Your task to perform on an android device: delete a single message in the gmail app Image 0: 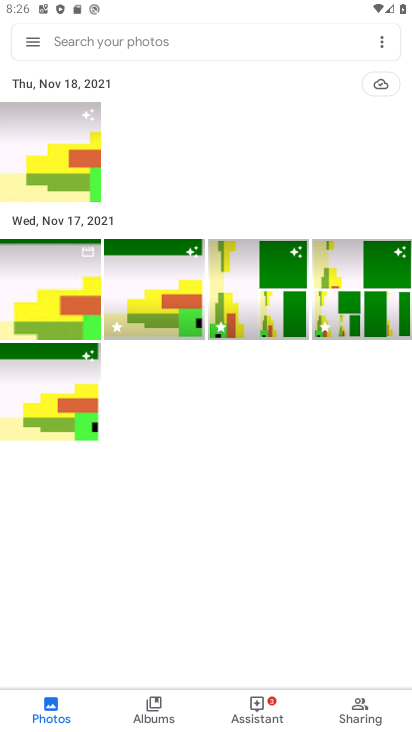
Step 0: press home button
Your task to perform on an android device: delete a single message in the gmail app Image 1: 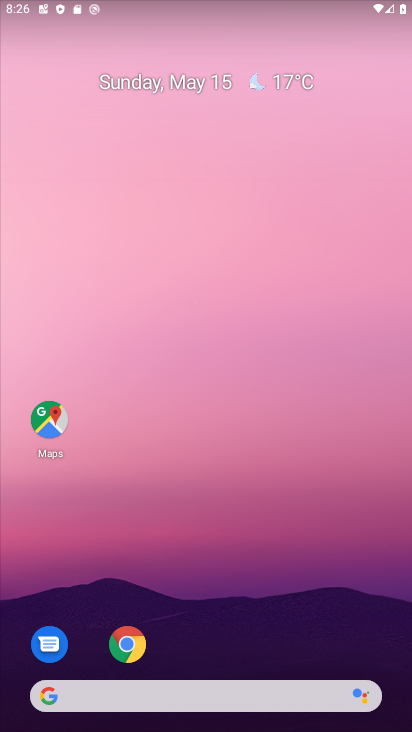
Step 1: drag from (250, 704) to (194, 114)
Your task to perform on an android device: delete a single message in the gmail app Image 2: 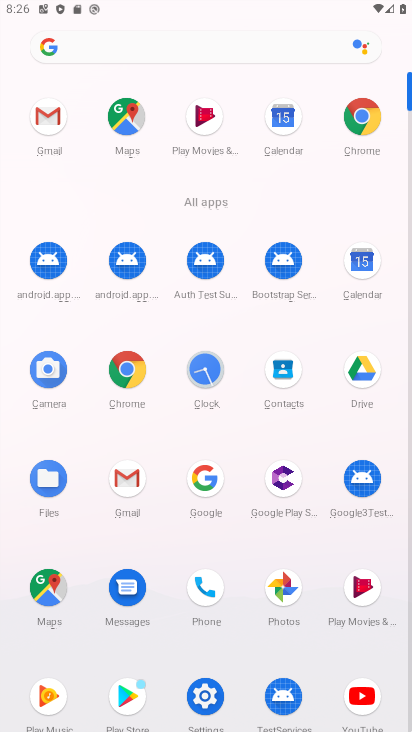
Step 2: click (45, 111)
Your task to perform on an android device: delete a single message in the gmail app Image 3: 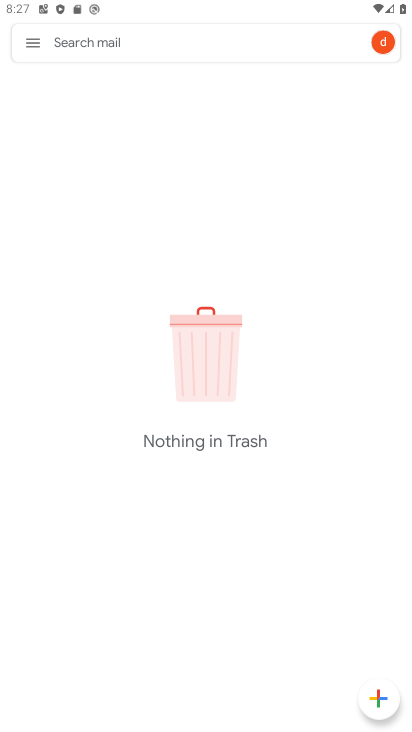
Step 3: task complete